Your task to perform on an android device: manage bookmarks in the chrome app Image 0: 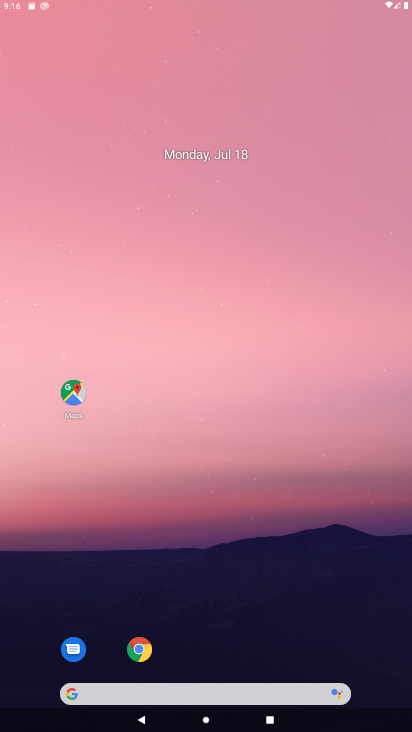
Step 0: drag from (342, 140) to (306, 7)
Your task to perform on an android device: manage bookmarks in the chrome app Image 1: 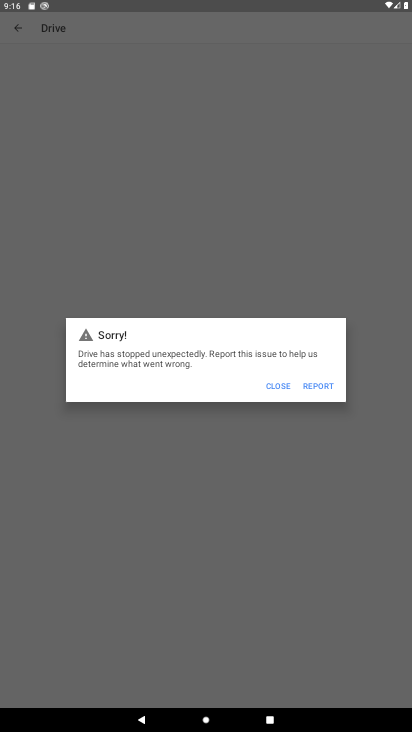
Step 1: press home button
Your task to perform on an android device: manage bookmarks in the chrome app Image 2: 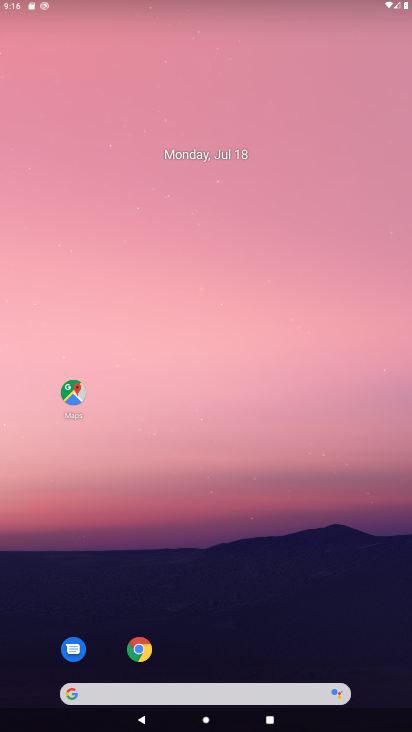
Step 2: drag from (233, 669) to (194, 0)
Your task to perform on an android device: manage bookmarks in the chrome app Image 3: 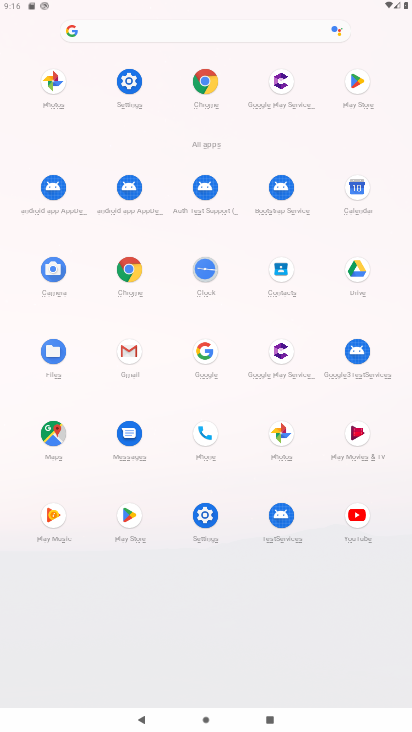
Step 3: click (208, 87)
Your task to perform on an android device: manage bookmarks in the chrome app Image 4: 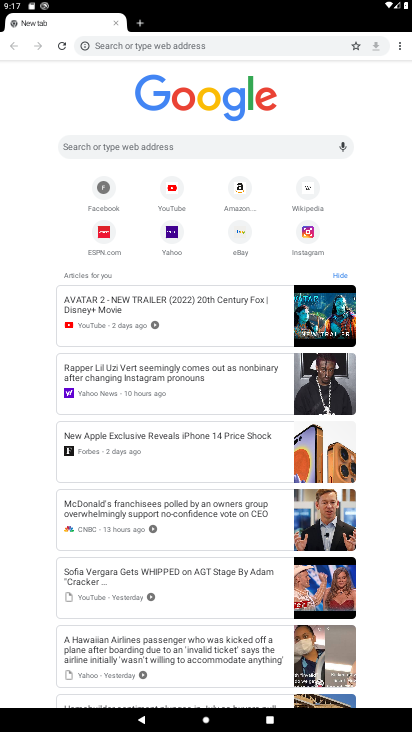
Step 4: drag from (400, 45) to (327, 96)
Your task to perform on an android device: manage bookmarks in the chrome app Image 5: 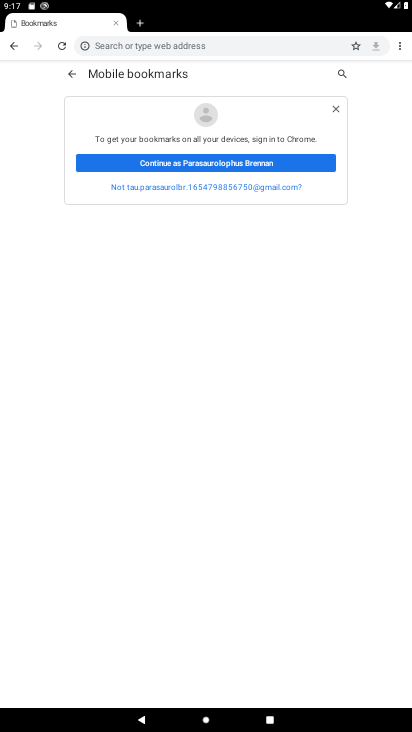
Step 5: click (201, 166)
Your task to perform on an android device: manage bookmarks in the chrome app Image 6: 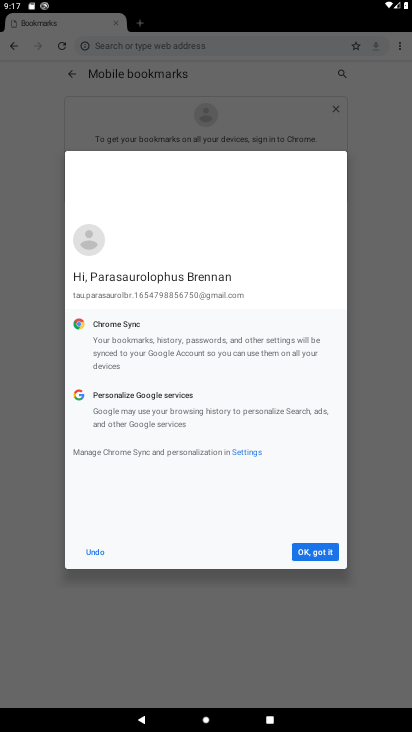
Step 6: click (310, 561)
Your task to perform on an android device: manage bookmarks in the chrome app Image 7: 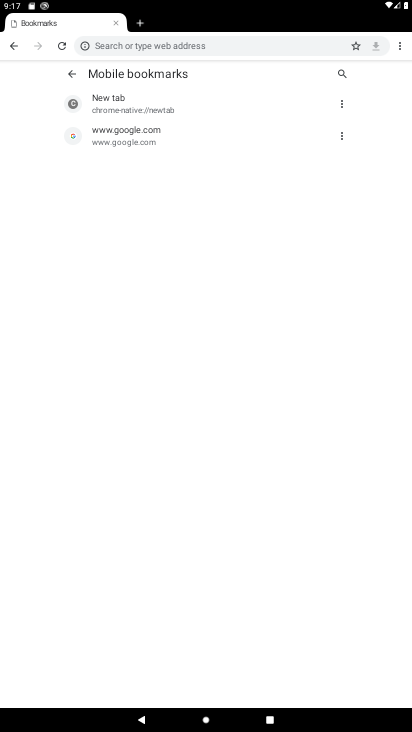
Step 7: click (334, 136)
Your task to perform on an android device: manage bookmarks in the chrome app Image 8: 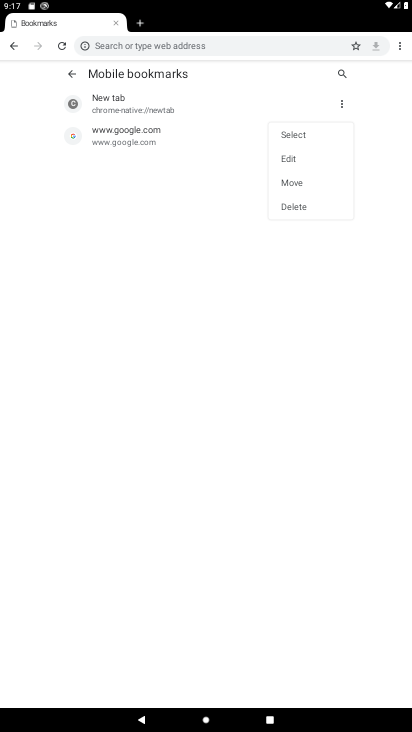
Step 8: click (275, 208)
Your task to perform on an android device: manage bookmarks in the chrome app Image 9: 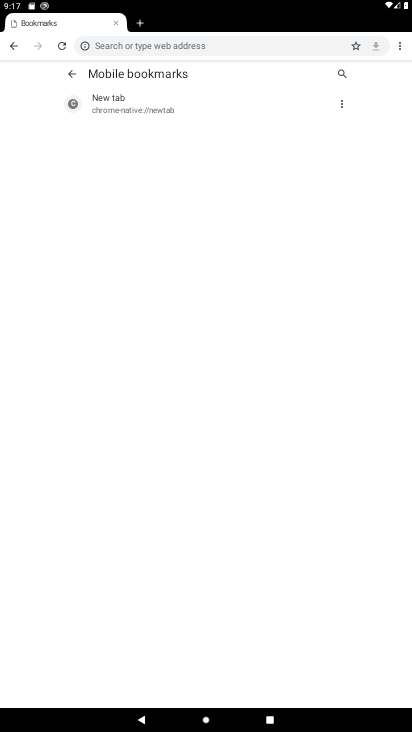
Step 9: task complete